Your task to perform on an android device: turn on data saver in the chrome app Image 0: 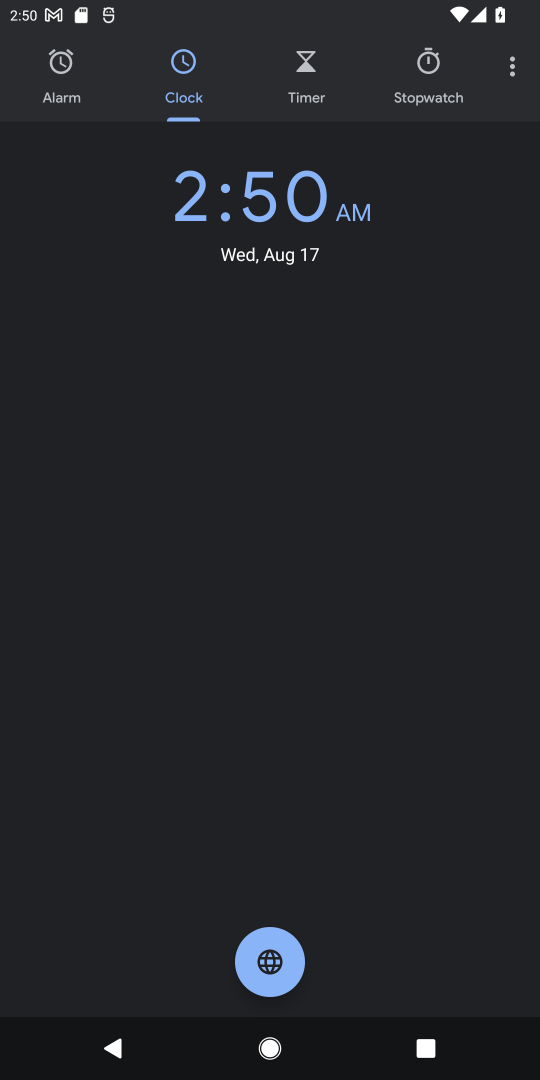
Step 0: press home button
Your task to perform on an android device: turn on data saver in the chrome app Image 1: 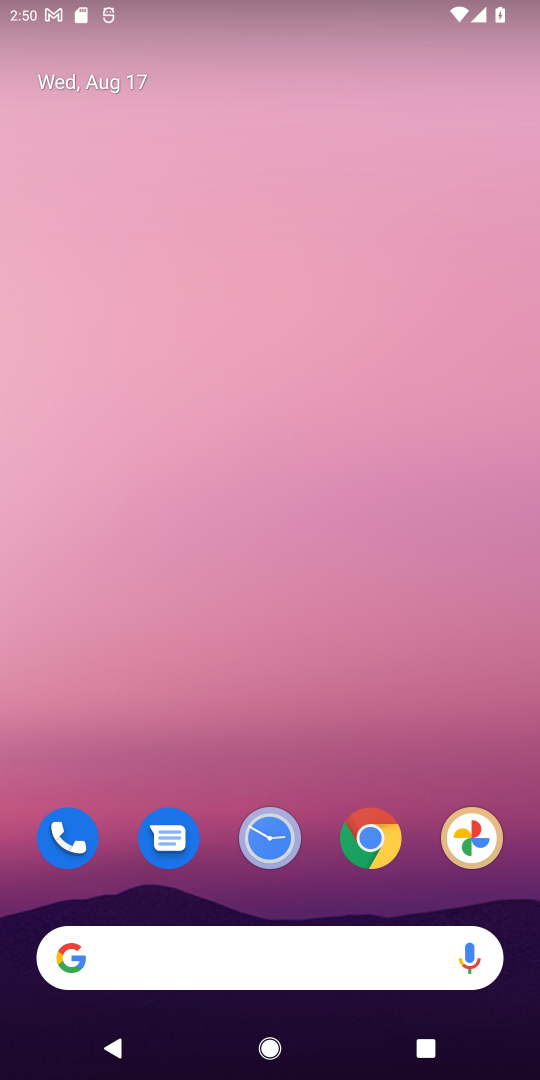
Step 1: click (380, 828)
Your task to perform on an android device: turn on data saver in the chrome app Image 2: 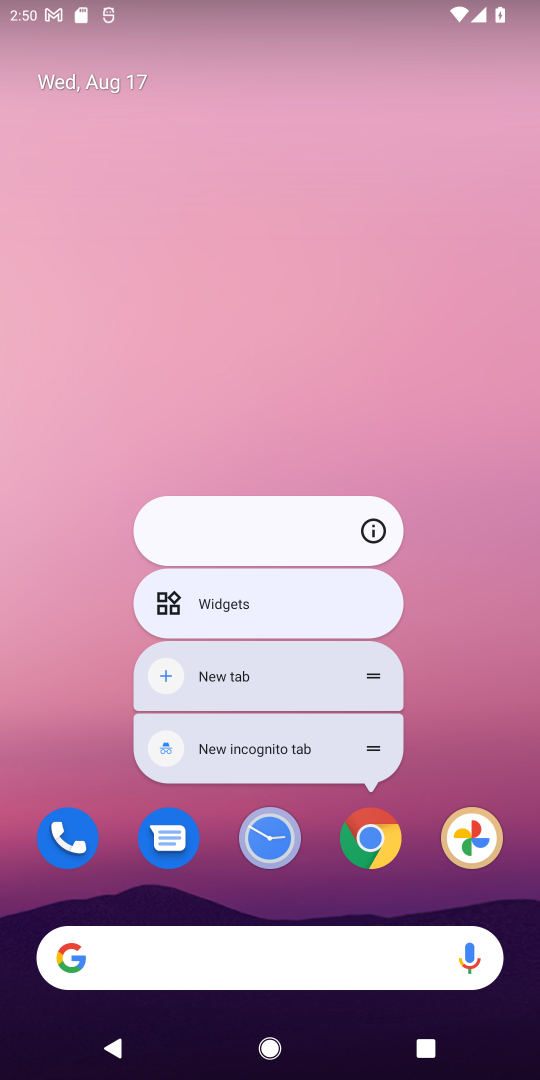
Step 2: click (365, 852)
Your task to perform on an android device: turn on data saver in the chrome app Image 3: 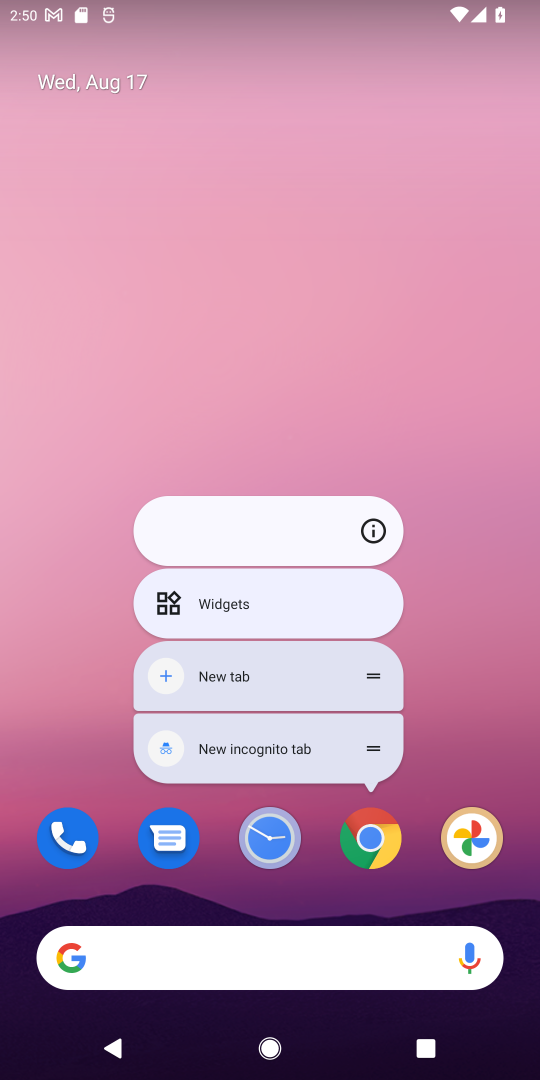
Step 3: click (365, 852)
Your task to perform on an android device: turn on data saver in the chrome app Image 4: 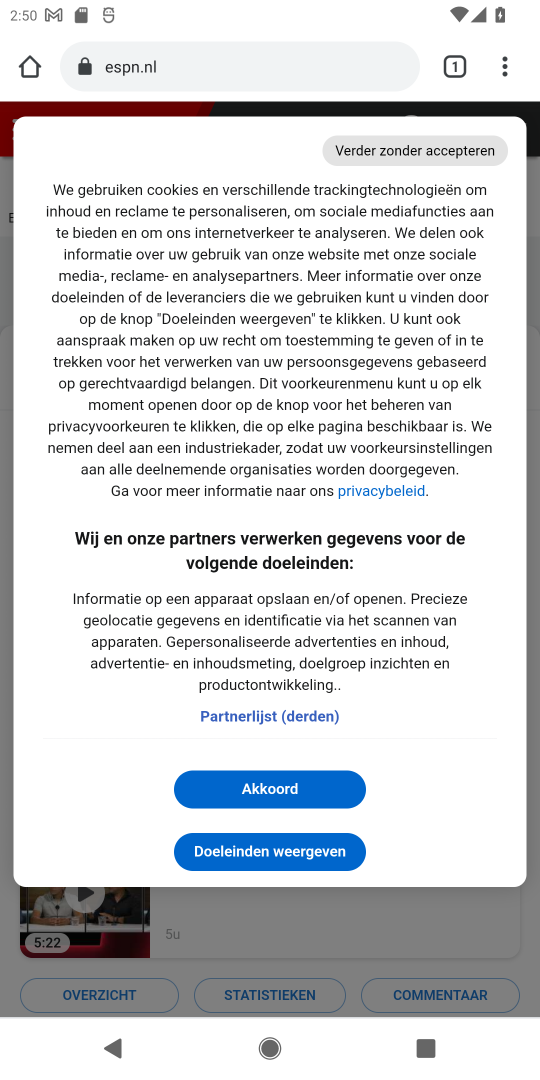
Step 4: click (498, 67)
Your task to perform on an android device: turn on data saver in the chrome app Image 5: 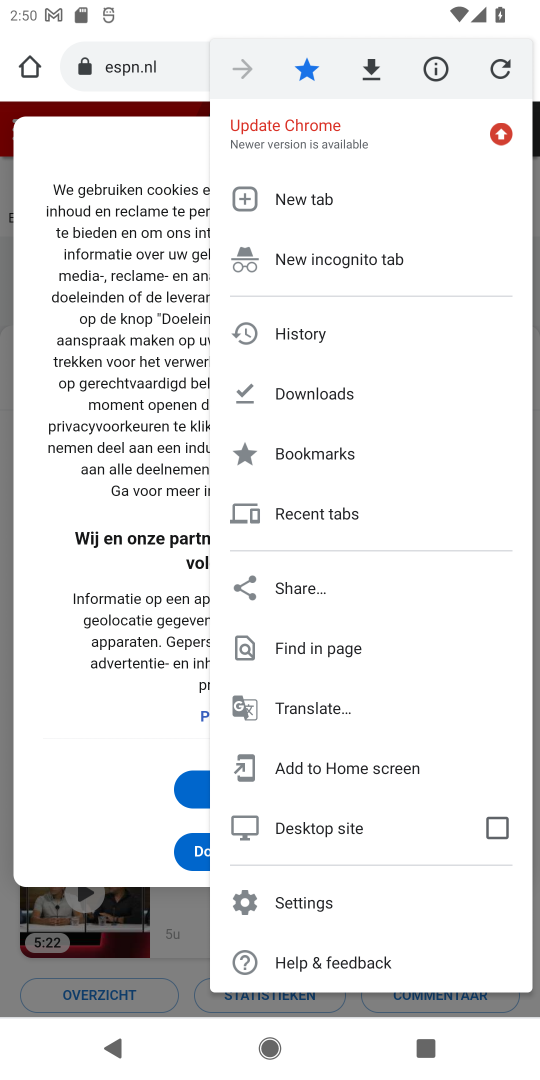
Step 5: click (293, 913)
Your task to perform on an android device: turn on data saver in the chrome app Image 6: 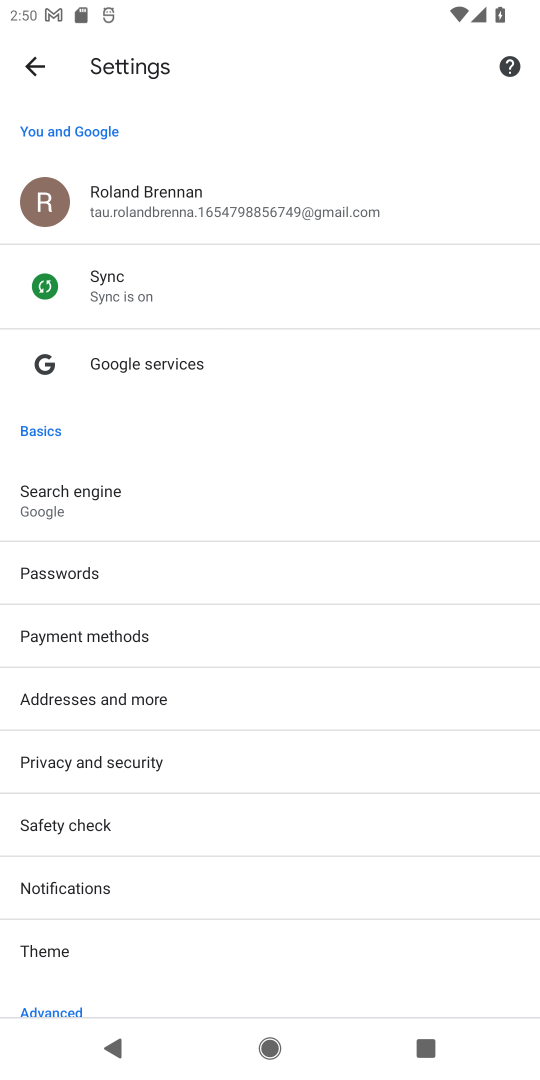
Step 6: drag from (101, 985) to (88, 482)
Your task to perform on an android device: turn on data saver in the chrome app Image 7: 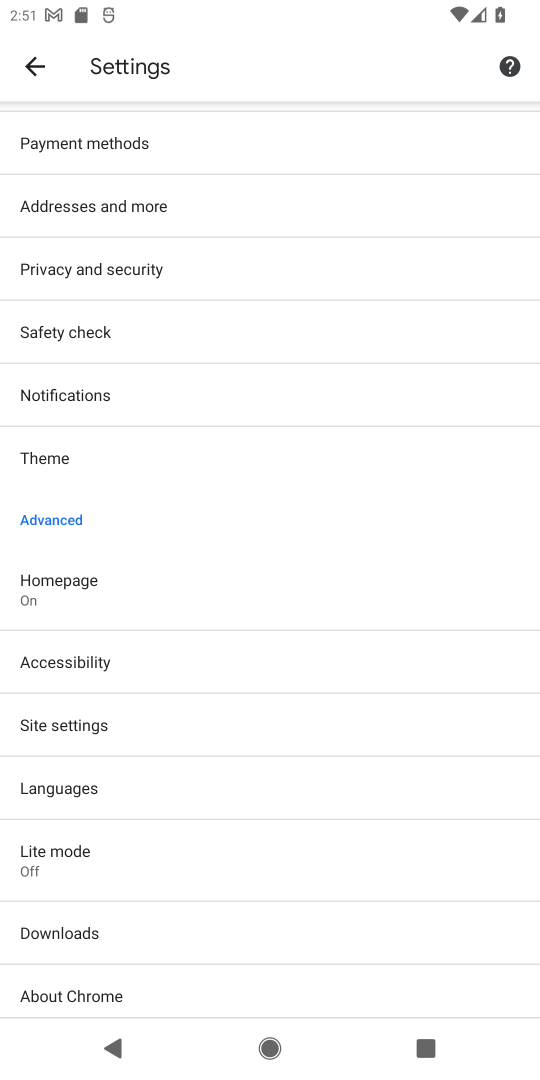
Step 7: click (87, 856)
Your task to perform on an android device: turn on data saver in the chrome app Image 8: 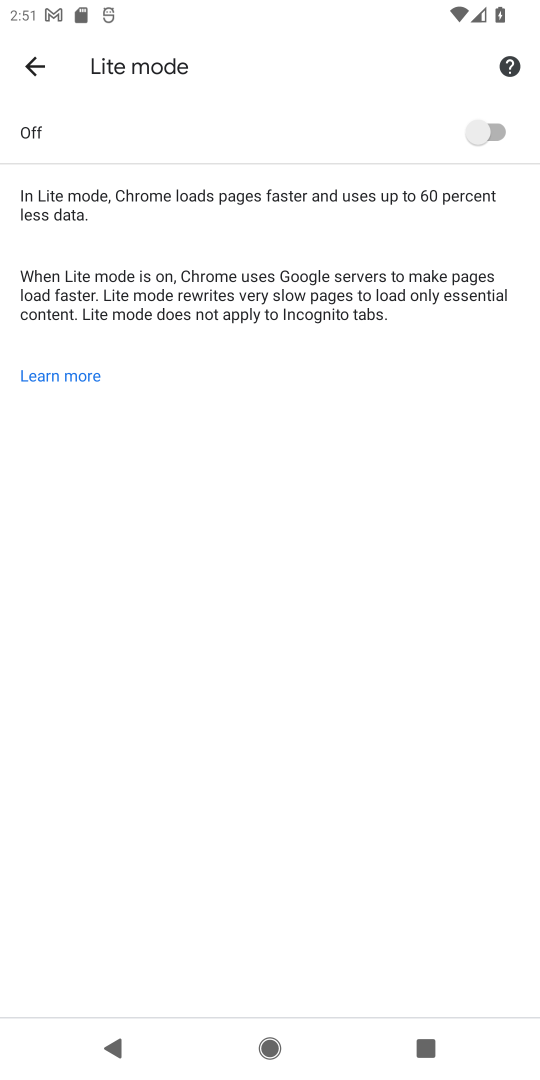
Step 8: click (487, 132)
Your task to perform on an android device: turn on data saver in the chrome app Image 9: 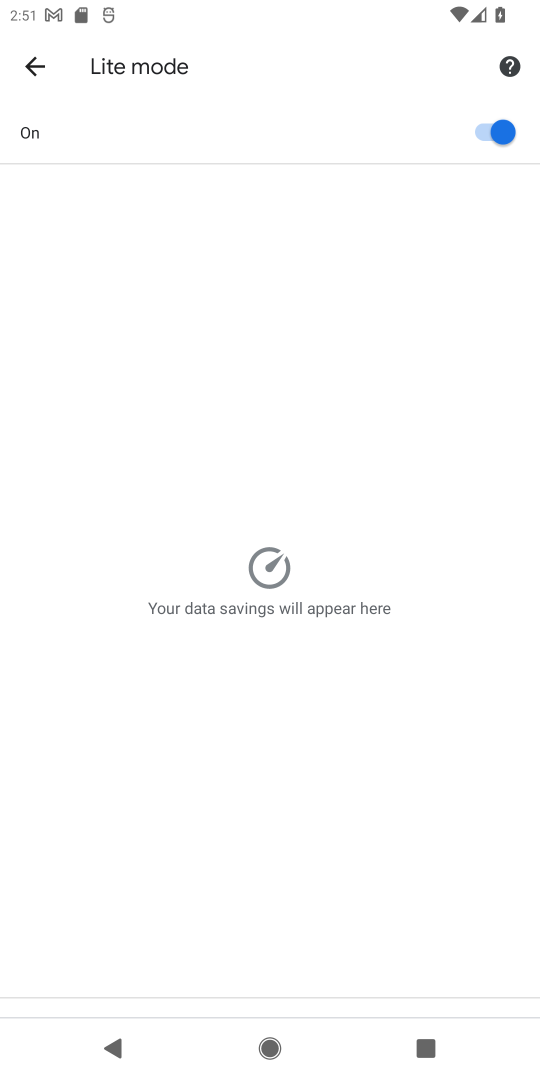
Step 9: task complete